Your task to perform on an android device: turn on the 24-hour format for clock Image 0: 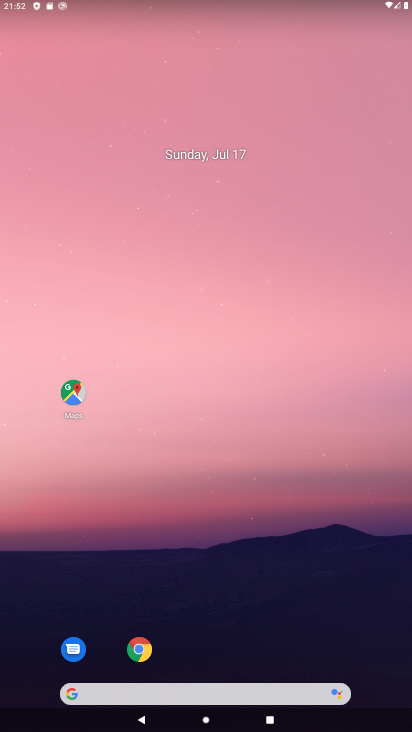
Step 0: drag from (4, 707) to (263, 148)
Your task to perform on an android device: turn on the 24-hour format for clock Image 1: 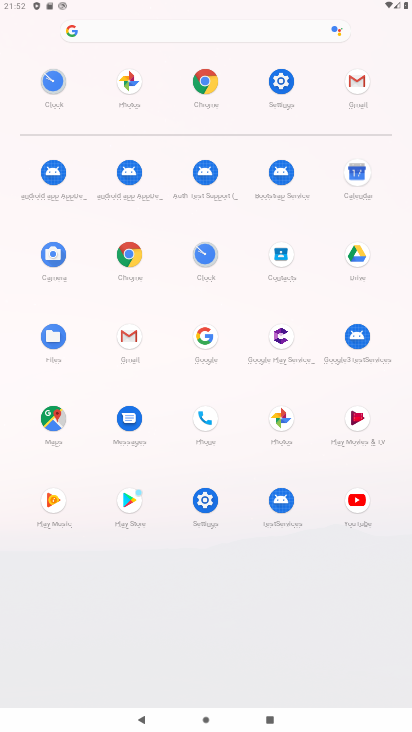
Step 1: click (212, 262)
Your task to perform on an android device: turn on the 24-hour format for clock Image 2: 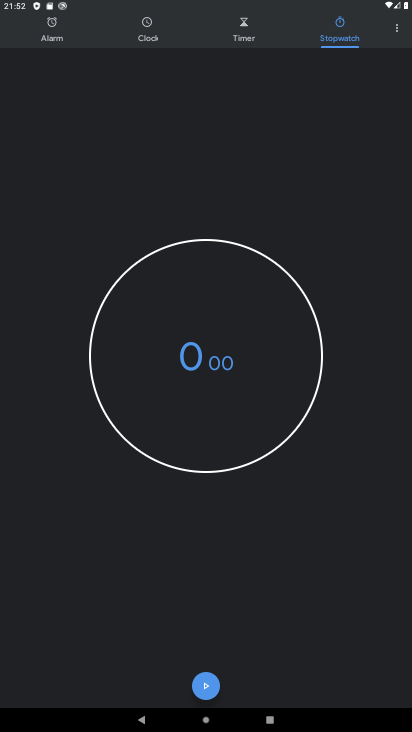
Step 2: click (60, 39)
Your task to perform on an android device: turn on the 24-hour format for clock Image 3: 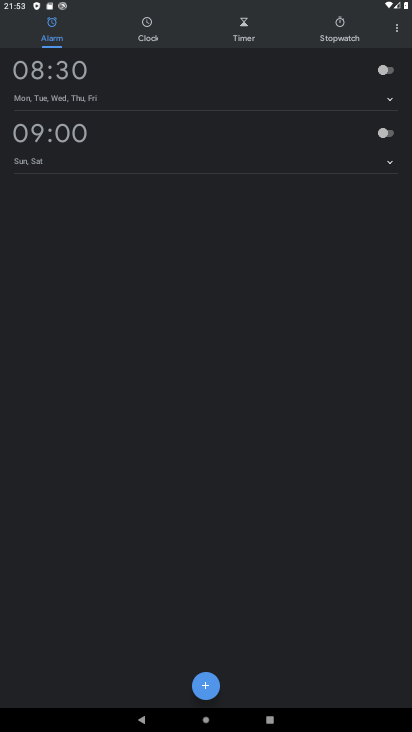
Step 3: click (388, 32)
Your task to perform on an android device: turn on the 24-hour format for clock Image 4: 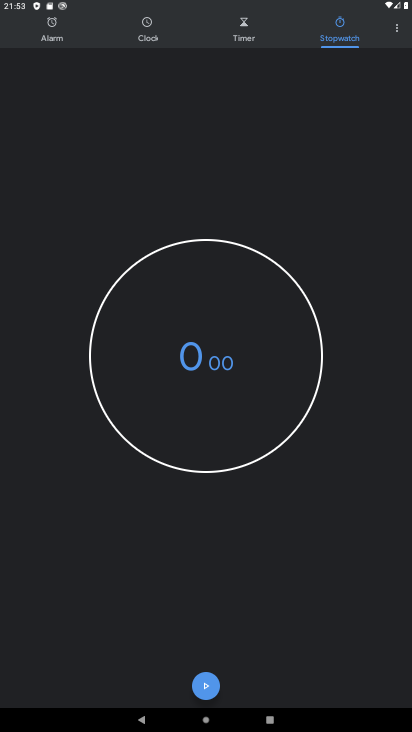
Step 4: click (396, 28)
Your task to perform on an android device: turn on the 24-hour format for clock Image 5: 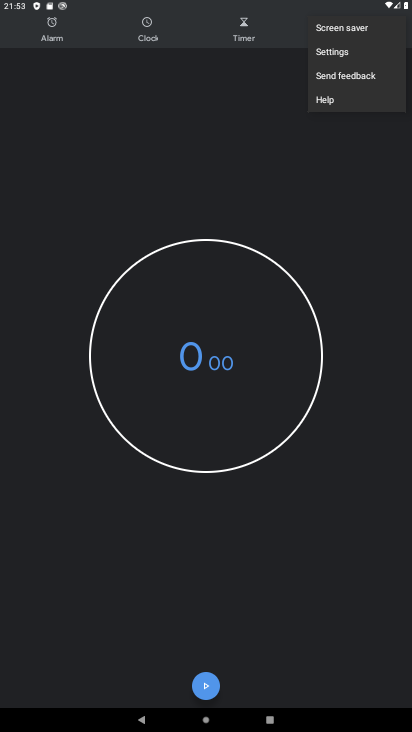
Step 5: click (320, 56)
Your task to perform on an android device: turn on the 24-hour format for clock Image 6: 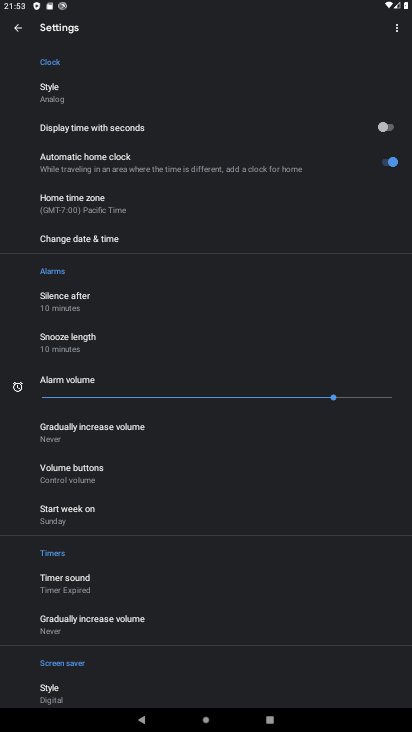
Step 6: drag from (150, 655) to (201, 375)
Your task to perform on an android device: turn on the 24-hour format for clock Image 7: 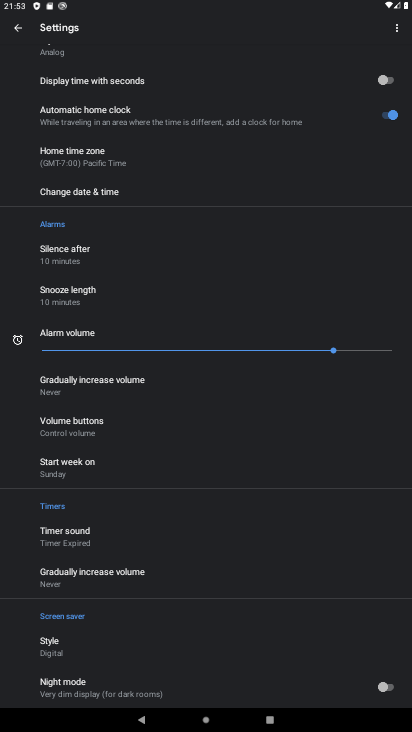
Step 7: drag from (139, 640) to (160, 524)
Your task to perform on an android device: turn on the 24-hour format for clock Image 8: 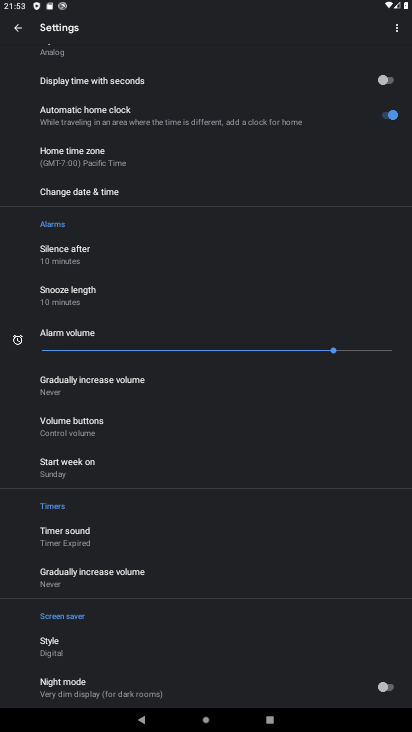
Step 8: click (94, 191)
Your task to perform on an android device: turn on the 24-hour format for clock Image 9: 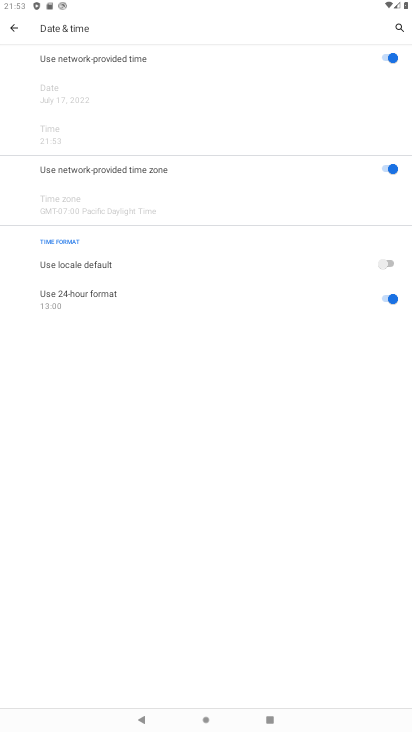
Step 9: task complete